Your task to perform on an android device: Open Android settings Image 0: 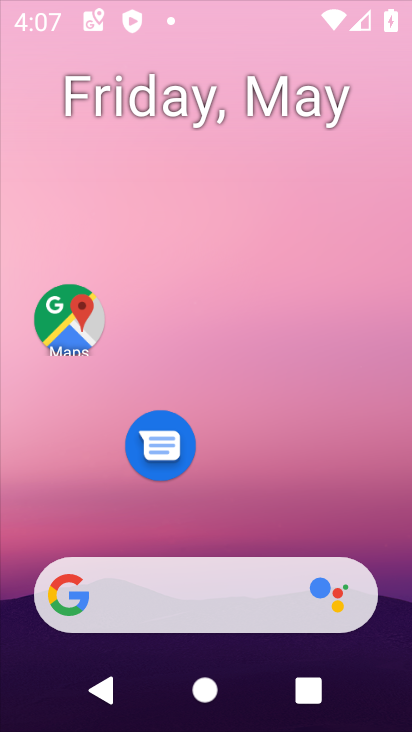
Step 0: click (287, 446)
Your task to perform on an android device: Open Android settings Image 1: 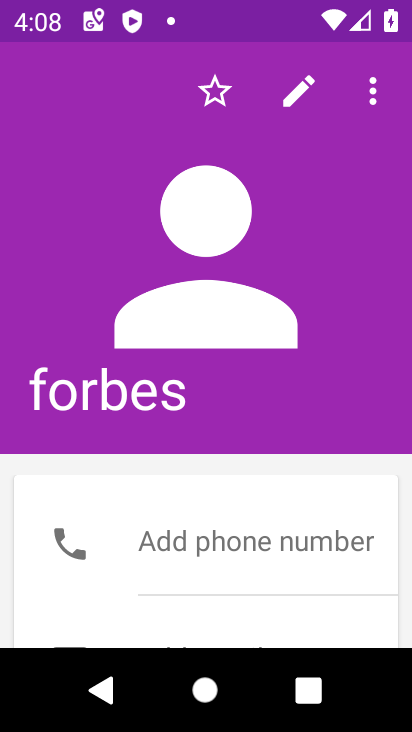
Step 1: press home button
Your task to perform on an android device: Open Android settings Image 2: 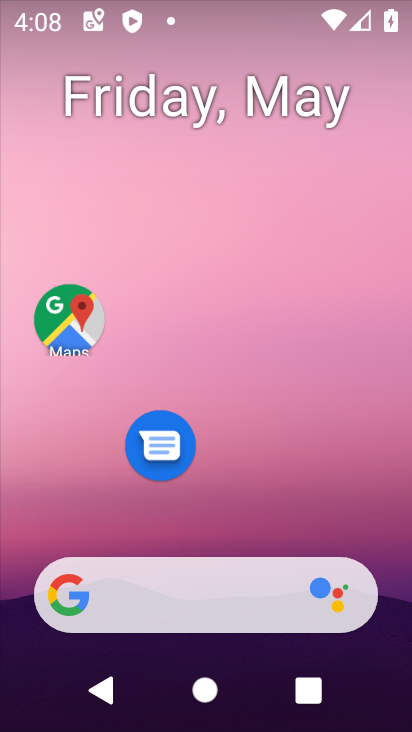
Step 2: drag from (232, 524) to (199, 1)
Your task to perform on an android device: Open Android settings Image 3: 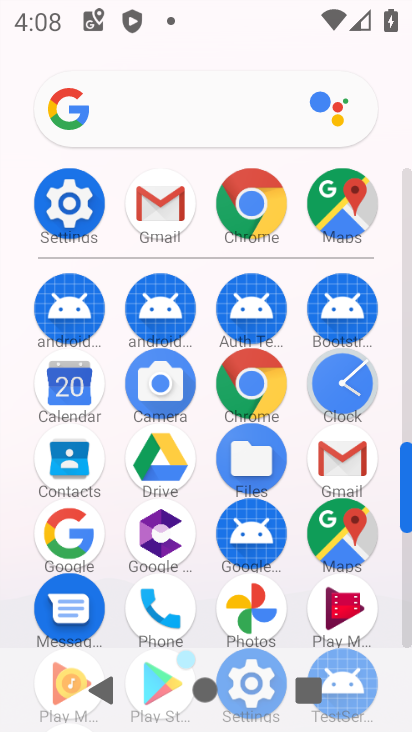
Step 3: click (81, 220)
Your task to perform on an android device: Open Android settings Image 4: 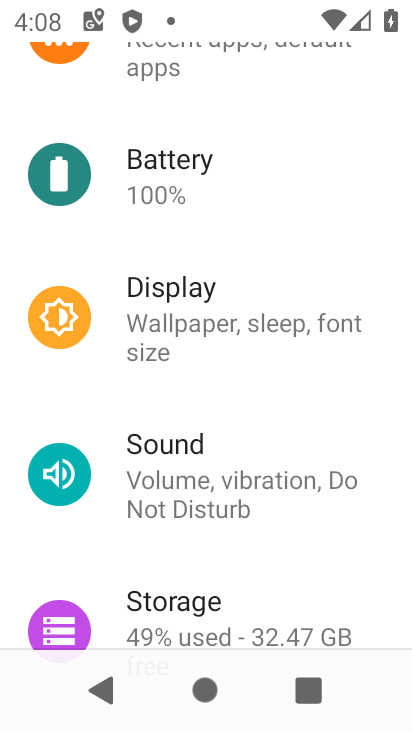
Step 4: drag from (205, 547) to (228, 86)
Your task to perform on an android device: Open Android settings Image 5: 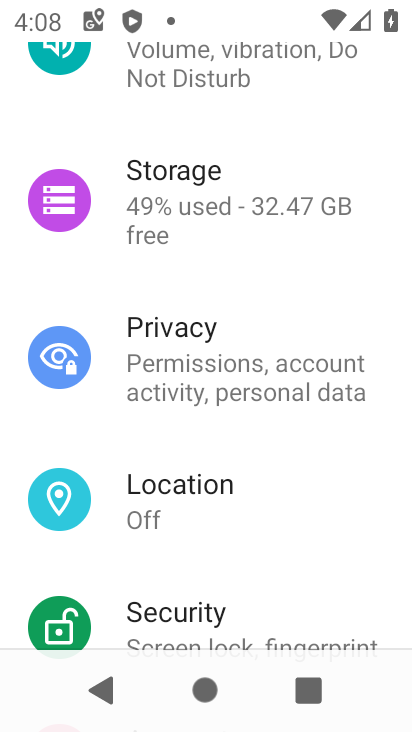
Step 5: drag from (224, 473) to (274, 89)
Your task to perform on an android device: Open Android settings Image 6: 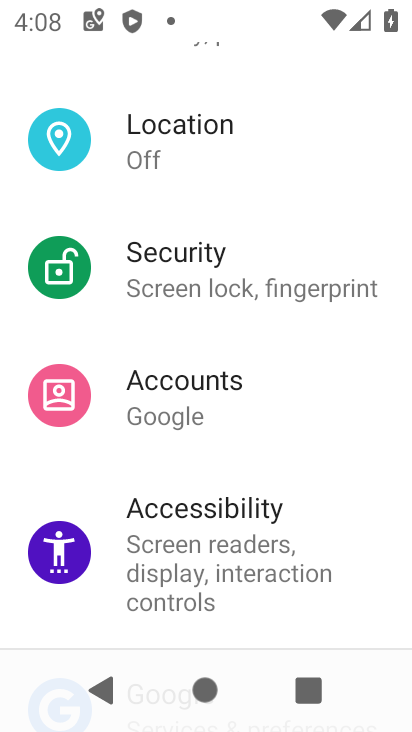
Step 6: drag from (230, 530) to (256, 92)
Your task to perform on an android device: Open Android settings Image 7: 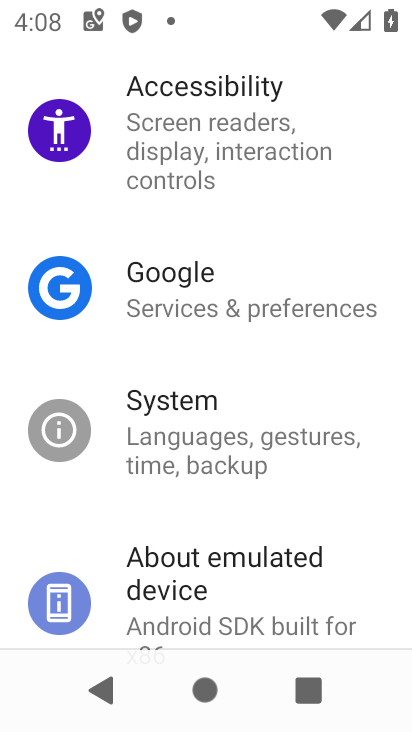
Step 7: click (197, 564)
Your task to perform on an android device: Open Android settings Image 8: 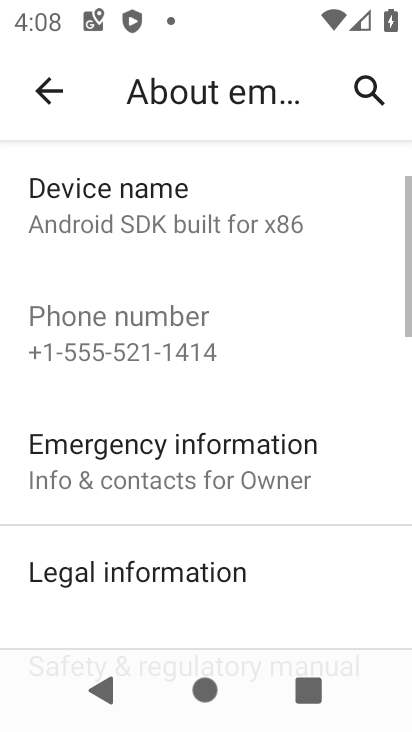
Step 8: drag from (184, 535) to (227, 165)
Your task to perform on an android device: Open Android settings Image 9: 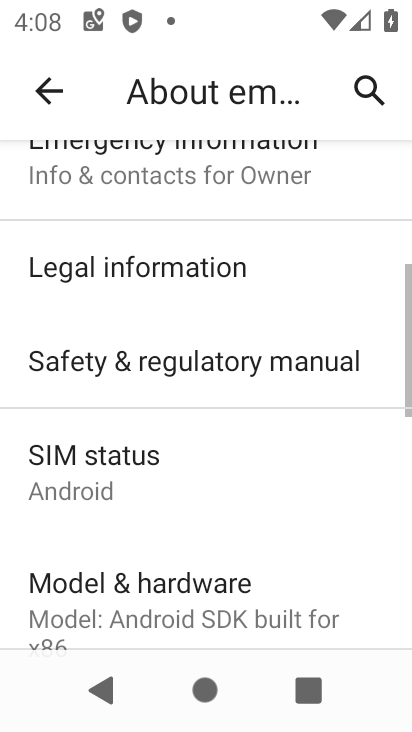
Step 9: drag from (201, 527) to (244, 303)
Your task to perform on an android device: Open Android settings Image 10: 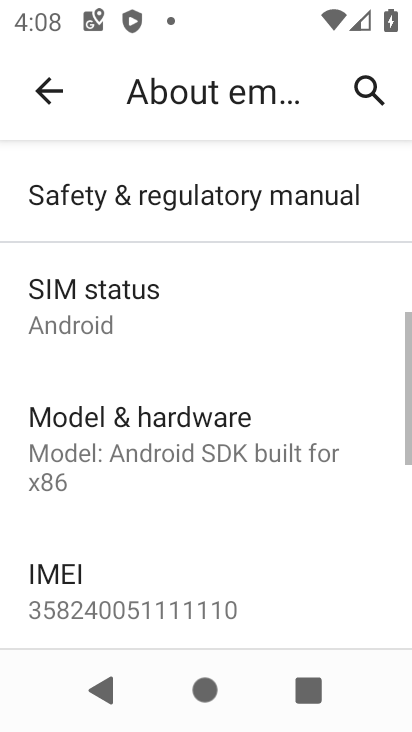
Step 10: drag from (190, 508) to (226, 241)
Your task to perform on an android device: Open Android settings Image 11: 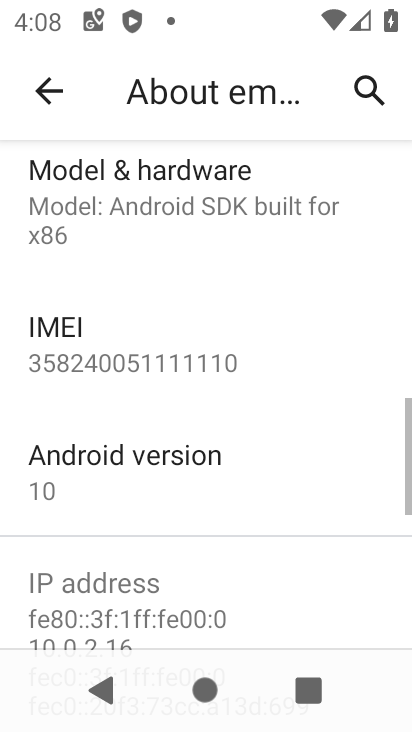
Step 11: click (195, 454)
Your task to perform on an android device: Open Android settings Image 12: 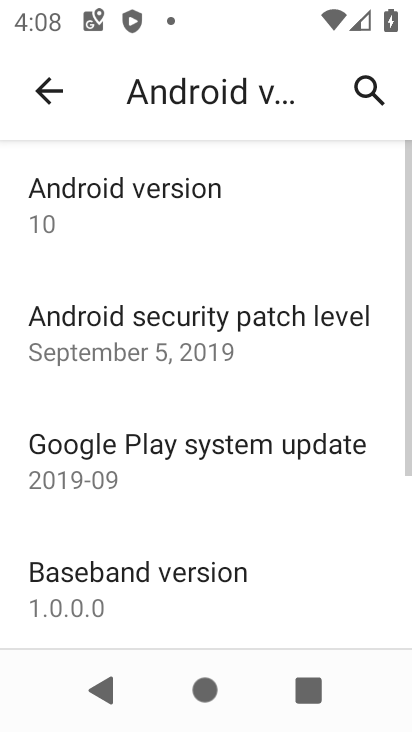
Step 12: task complete